Your task to perform on an android device: turn off data saver in the chrome app Image 0: 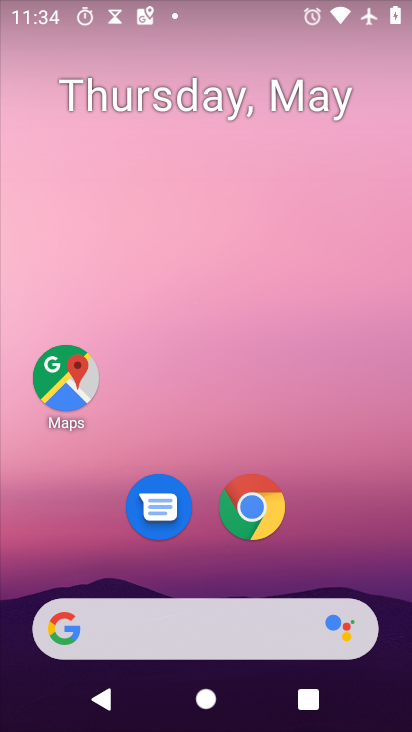
Step 0: drag from (359, 528) to (272, 42)
Your task to perform on an android device: turn off data saver in the chrome app Image 1: 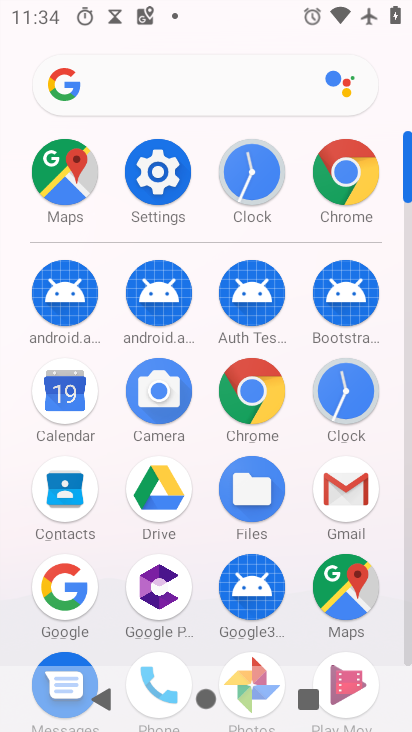
Step 1: drag from (9, 536) to (26, 260)
Your task to perform on an android device: turn off data saver in the chrome app Image 2: 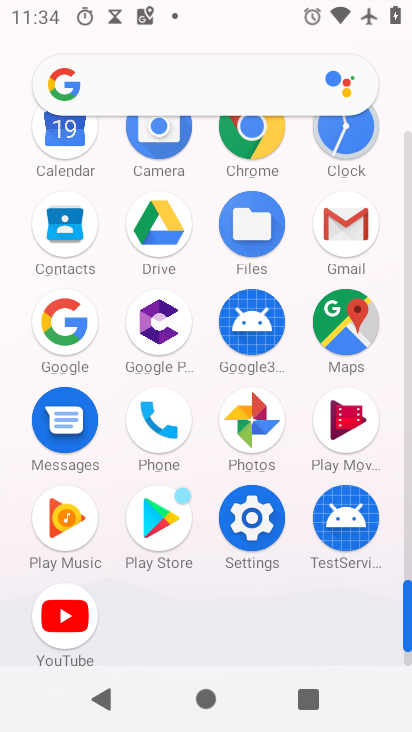
Step 2: click (252, 129)
Your task to perform on an android device: turn off data saver in the chrome app Image 3: 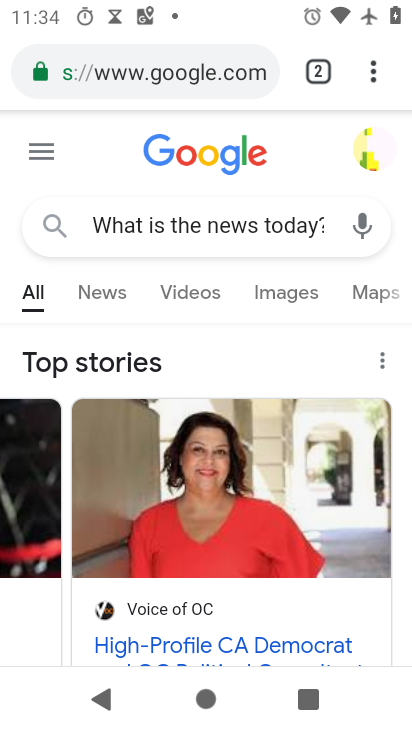
Step 3: drag from (374, 50) to (105, 494)
Your task to perform on an android device: turn off data saver in the chrome app Image 4: 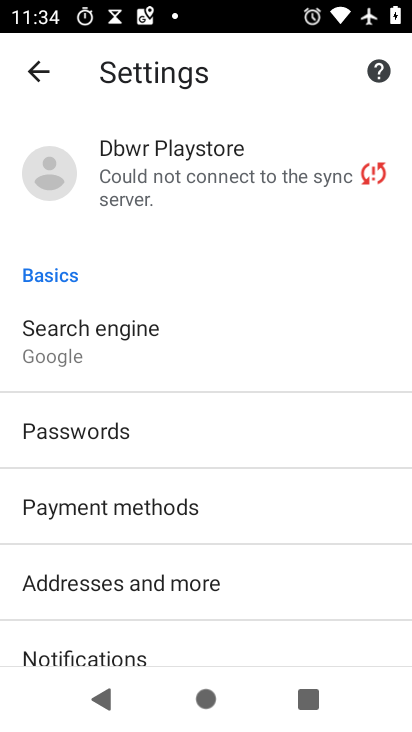
Step 4: drag from (204, 583) to (252, 178)
Your task to perform on an android device: turn off data saver in the chrome app Image 5: 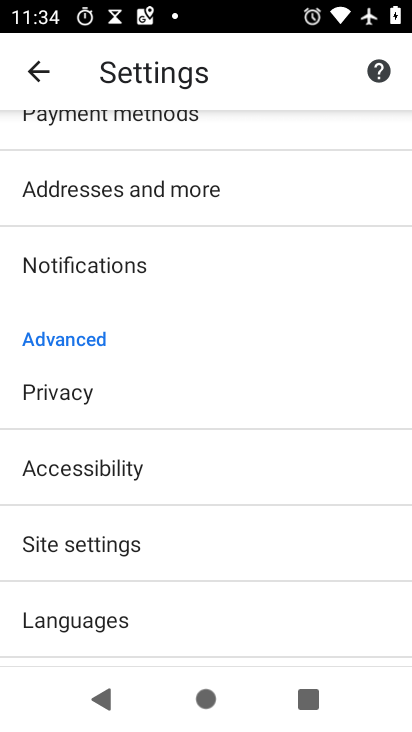
Step 5: drag from (140, 626) to (214, 149)
Your task to perform on an android device: turn off data saver in the chrome app Image 6: 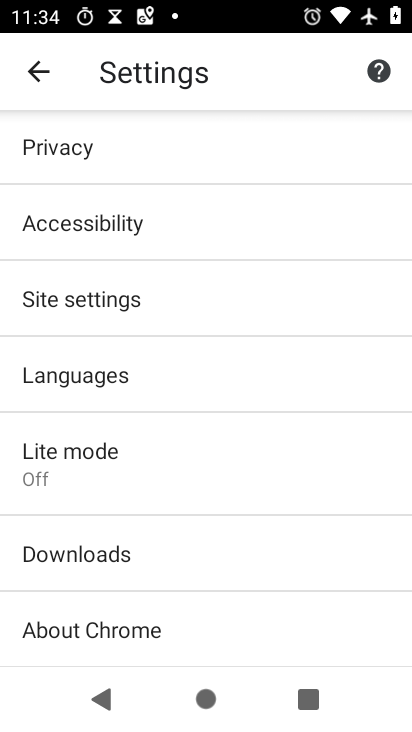
Step 6: drag from (152, 529) to (193, 171)
Your task to perform on an android device: turn off data saver in the chrome app Image 7: 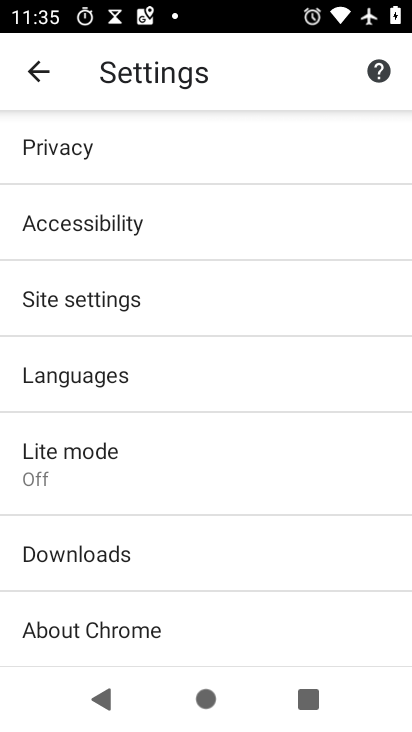
Step 7: click (118, 462)
Your task to perform on an android device: turn off data saver in the chrome app Image 8: 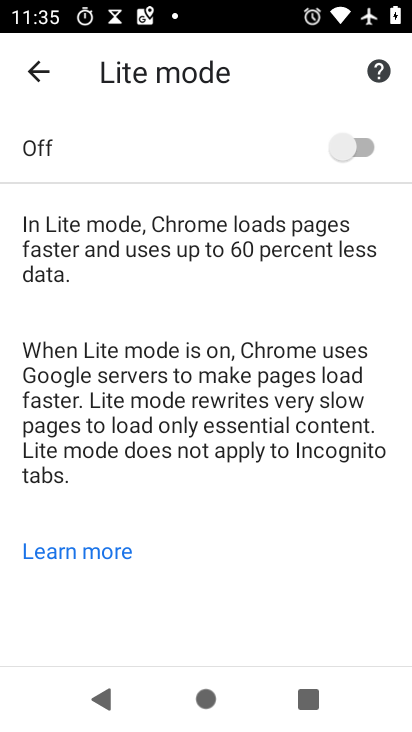
Step 8: task complete